Your task to perform on an android device: set an alarm Image 0: 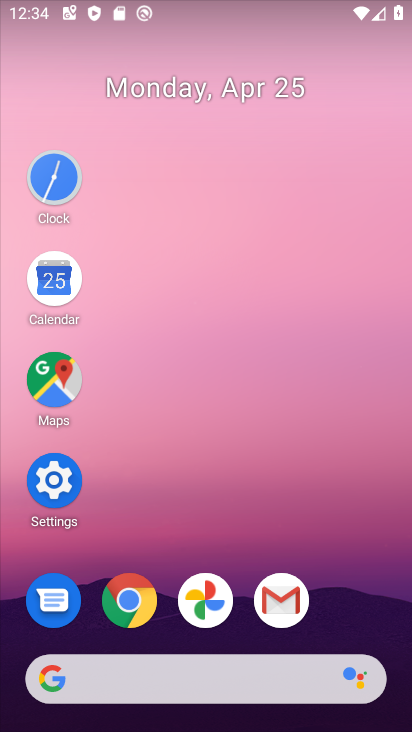
Step 0: click (53, 179)
Your task to perform on an android device: set an alarm Image 1: 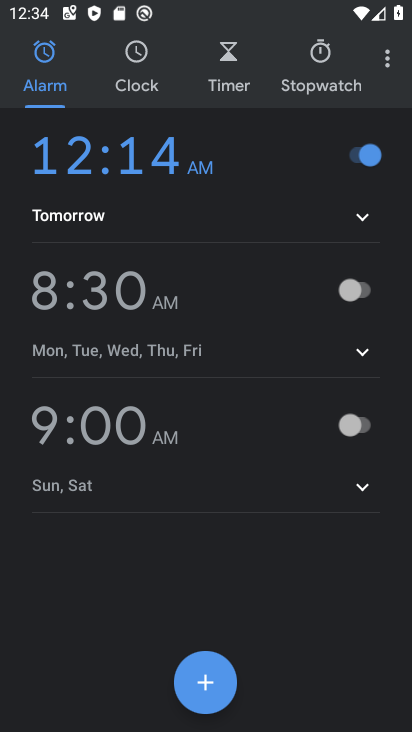
Step 1: click (207, 676)
Your task to perform on an android device: set an alarm Image 2: 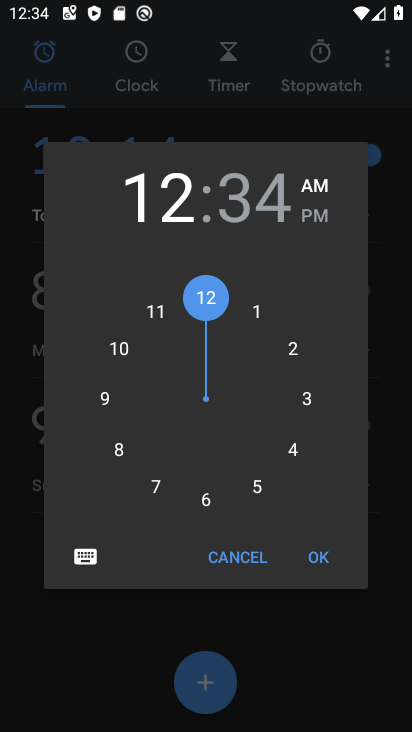
Step 2: click (319, 553)
Your task to perform on an android device: set an alarm Image 3: 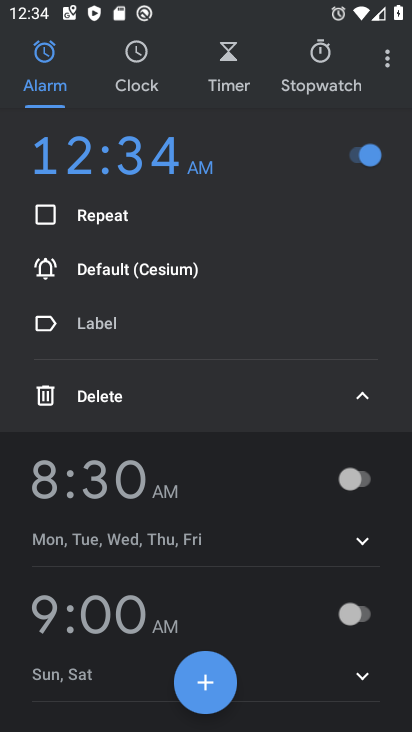
Step 3: task complete